Your task to perform on an android device: Open battery settings Image 0: 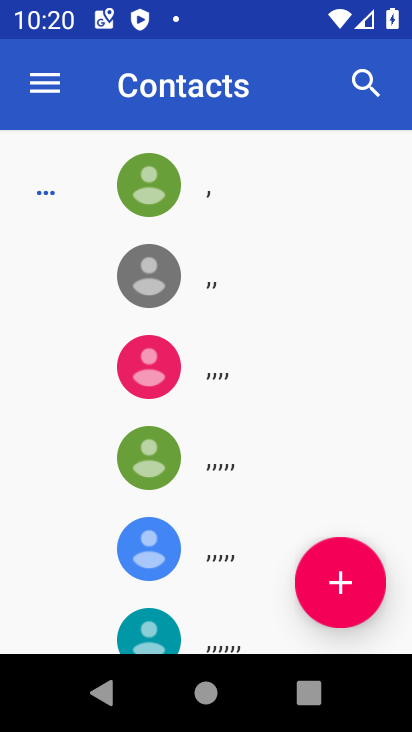
Step 0: press home button
Your task to perform on an android device: Open battery settings Image 1: 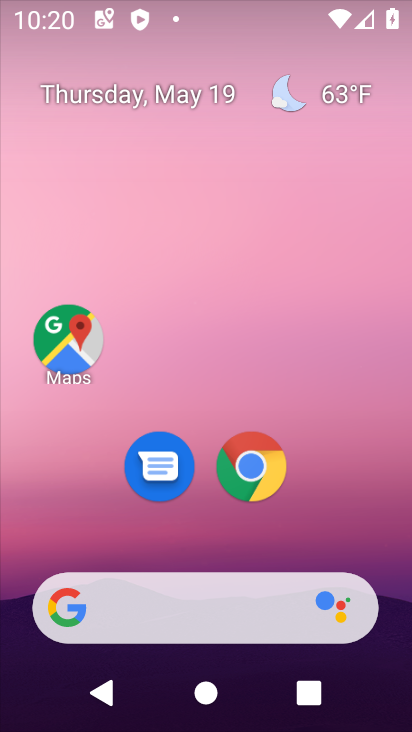
Step 1: drag from (389, 622) to (268, 89)
Your task to perform on an android device: Open battery settings Image 2: 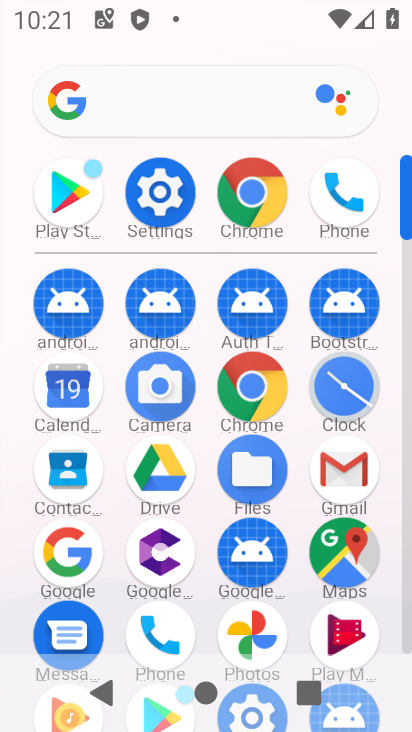
Step 2: click (168, 191)
Your task to perform on an android device: Open battery settings Image 3: 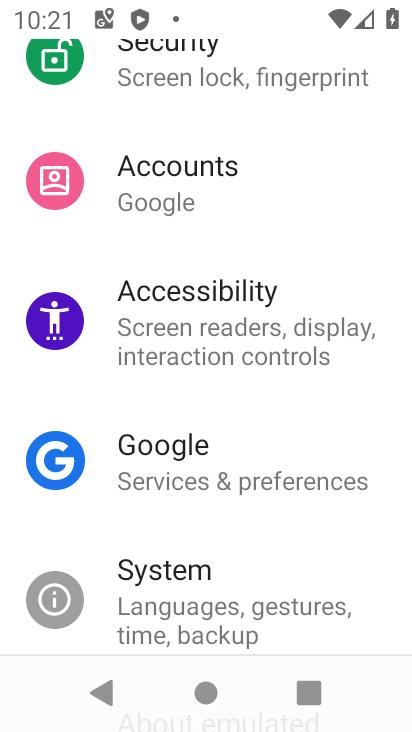
Step 3: drag from (203, 580) to (217, 145)
Your task to perform on an android device: Open battery settings Image 4: 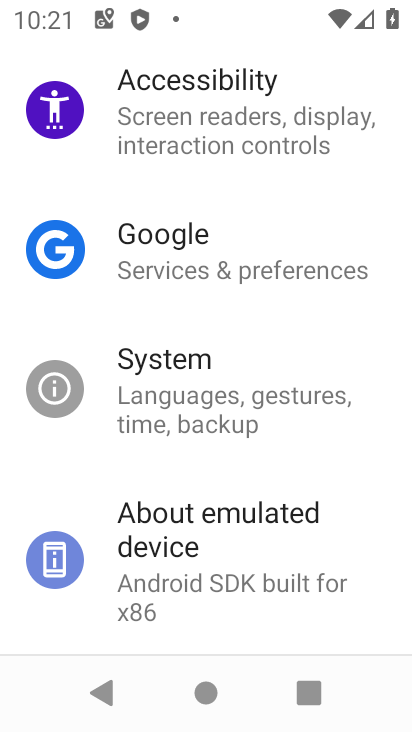
Step 4: drag from (200, 537) to (233, 215)
Your task to perform on an android device: Open battery settings Image 5: 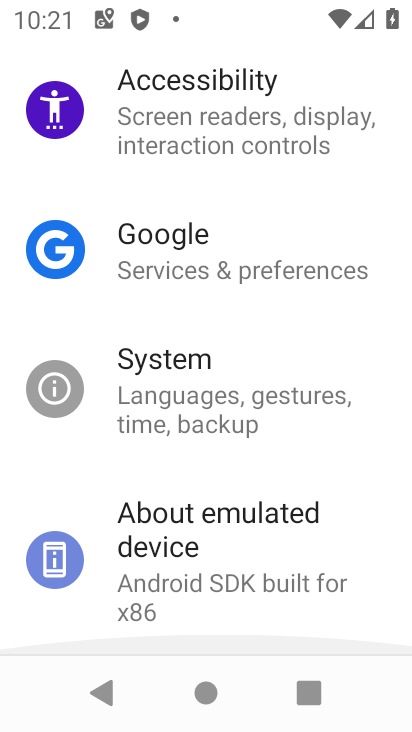
Step 5: drag from (229, 166) to (208, 674)
Your task to perform on an android device: Open battery settings Image 6: 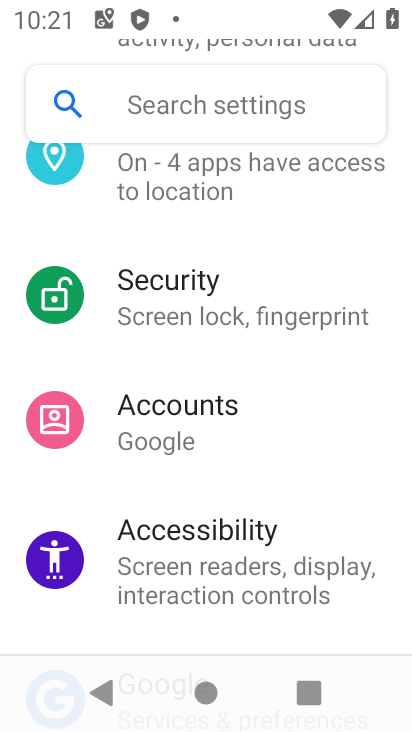
Step 6: drag from (209, 239) to (194, 547)
Your task to perform on an android device: Open battery settings Image 7: 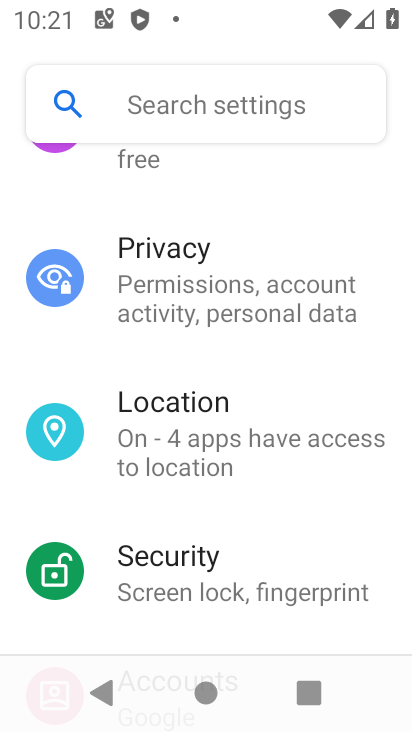
Step 7: drag from (202, 257) to (222, 610)
Your task to perform on an android device: Open battery settings Image 8: 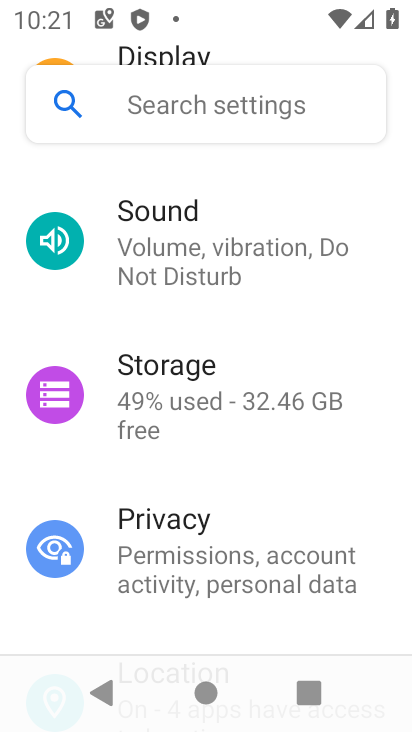
Step 8: drag from (254, 300) to (269, 659)
Your task to perform on an android device: Open battery settings Image 9: 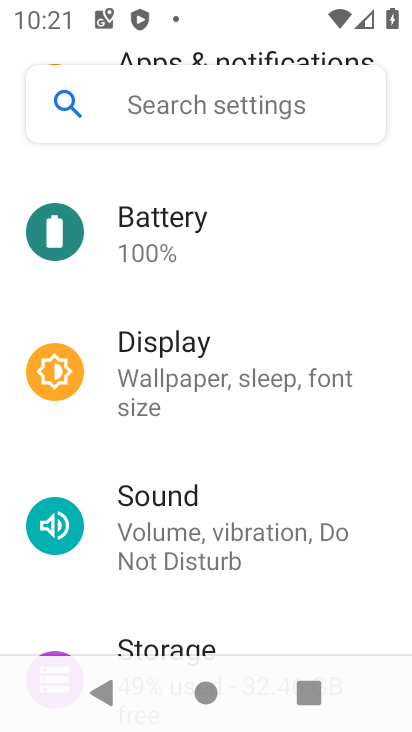
Step 9: click (230, 247)
Your task to perform on an android device: Open battery settings Image 10: 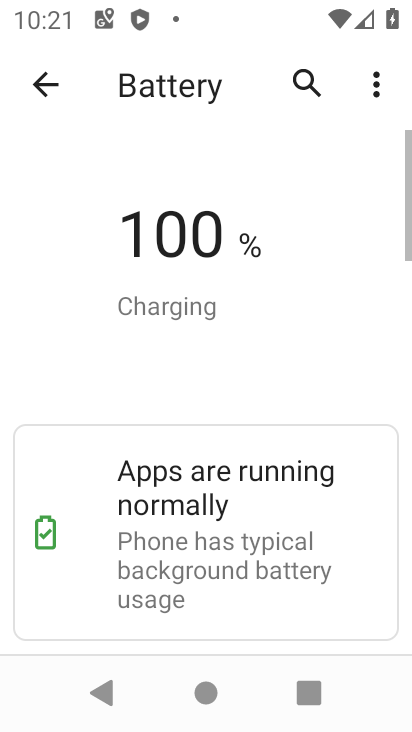
Step 10: task complete